Your task to perform on an android device: toggle pop-ups in chrome Image 0: 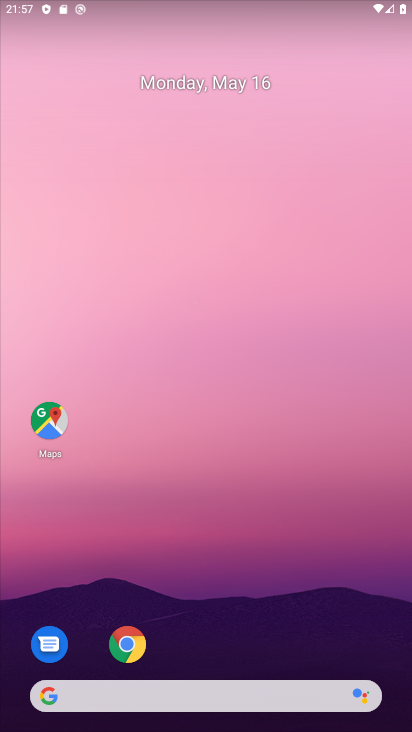
Step 0: click (126, 645)
Your task to perform on an android device: toggle pop-ups in chrome Image 1: 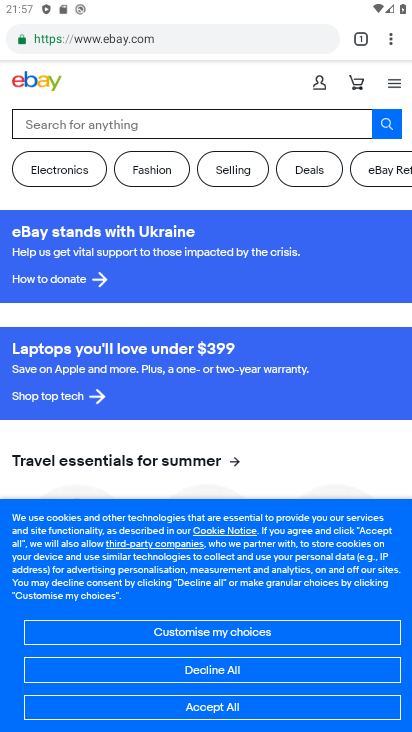
Step 1: click (394, 38)
Your task to perform on an android device: toggle pop-ups in chrome Image 2: 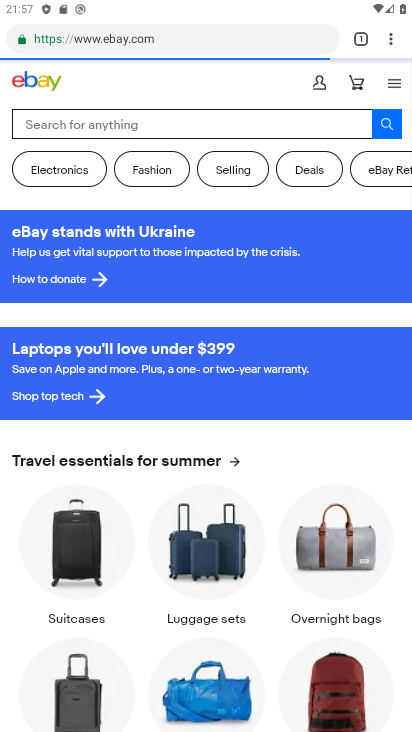
Step 2: click (385, 46)
Your task to perform on an android device: toggle pop-ups in chrome Image 3: 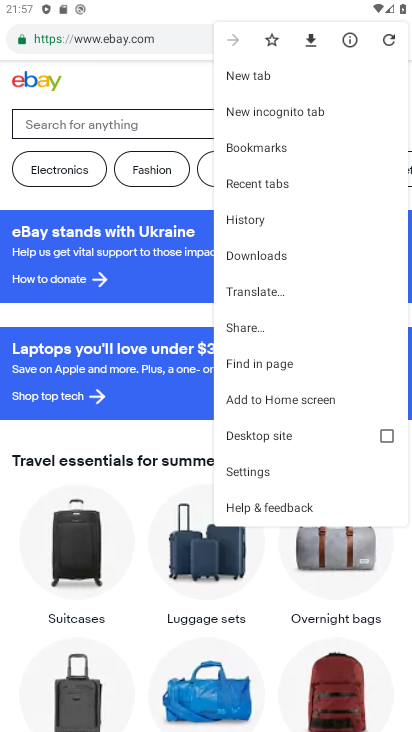
Step 3: click (234, 479)
Your task to perform on an android device: toggle pop-ups in chrome Image 4: 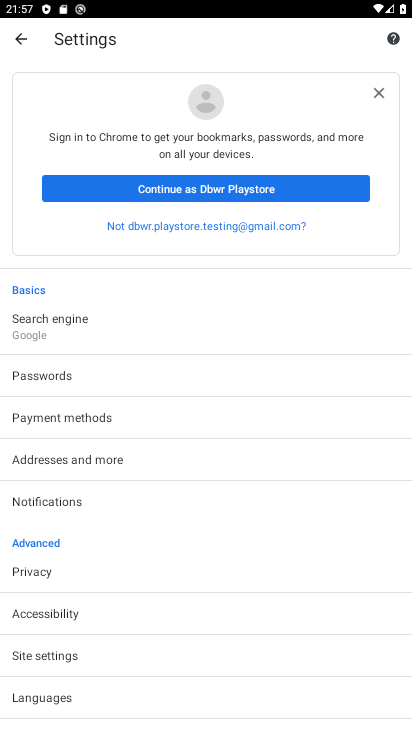
Step 4: click (77, 666)
Your task to perform on an android device: toggle pop-ups in chrome Image 5: 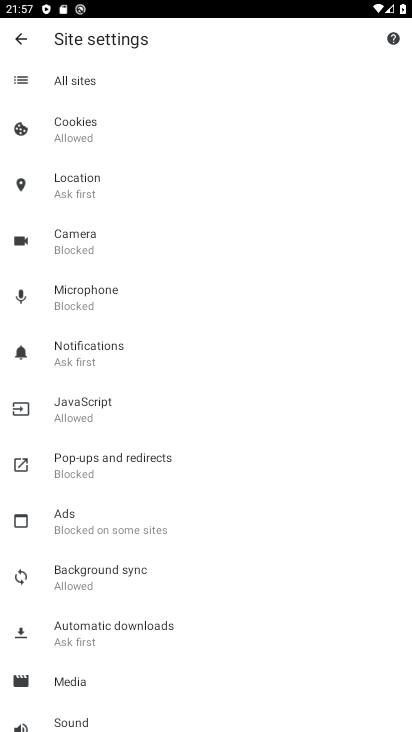
Step 5: click (149, 456)
Your task to perform on an android device: toggle pop-ups in chrome Image 6: 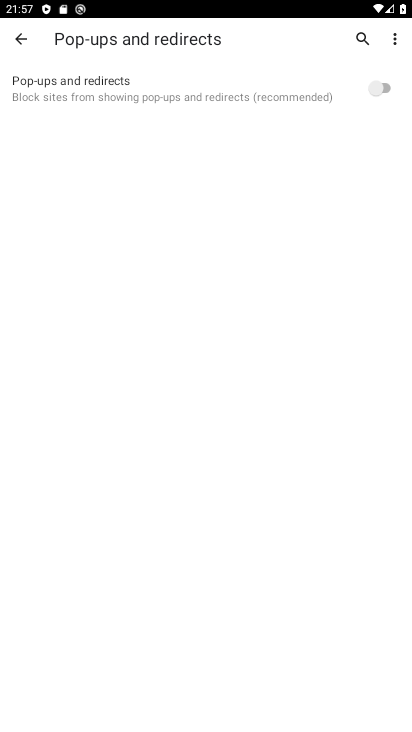
Step 6: click (372, 85)
Your task to perform on an android device: toggle pop-ups in chrome Image 7: 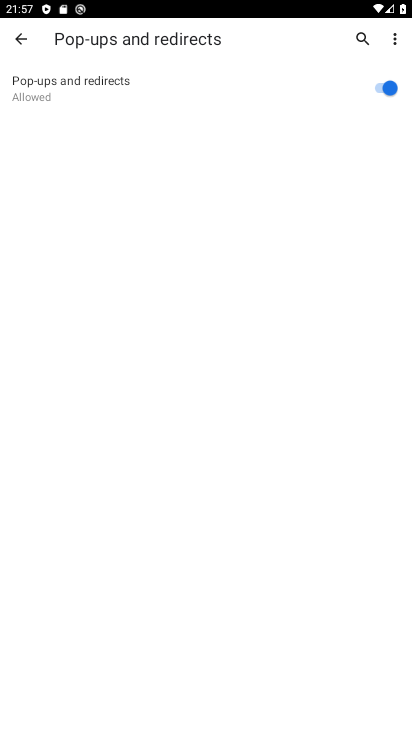
Step 7: task complete